Your task to perform on an android device: toggle airplane mode Image 0: 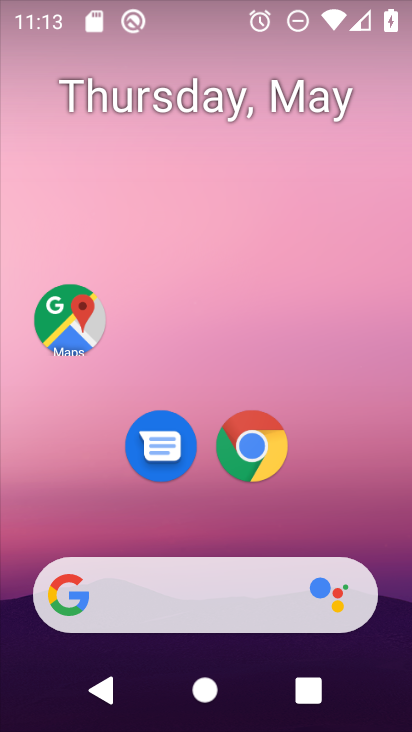
Step 0: drag from (218, 616) to (265, 188)
Your task to perform on an android device: toggle airplane mode Image 1: 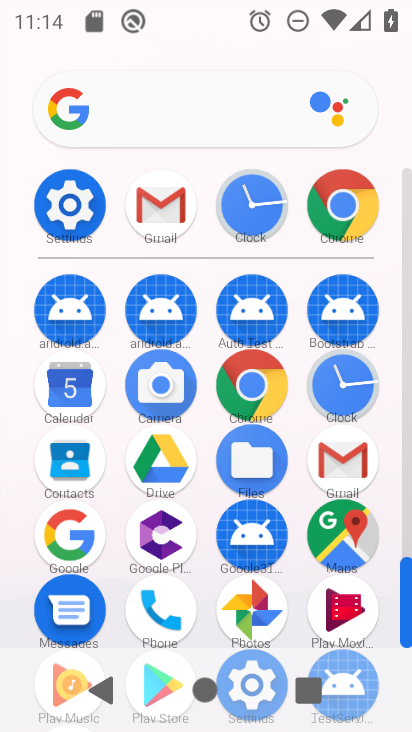
Step 1: click (62, 215)
Your task to perform on an android device: toggle airplane mode Image 2: 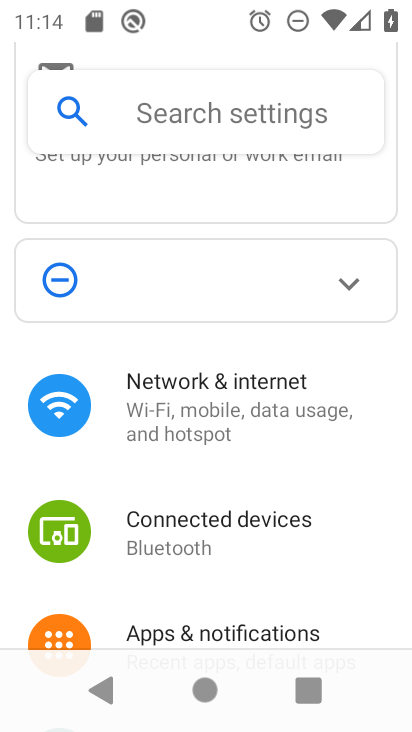
Step 2: click (156, 415)
Your task to perform on an android device: toggle airplane mode Image 3: 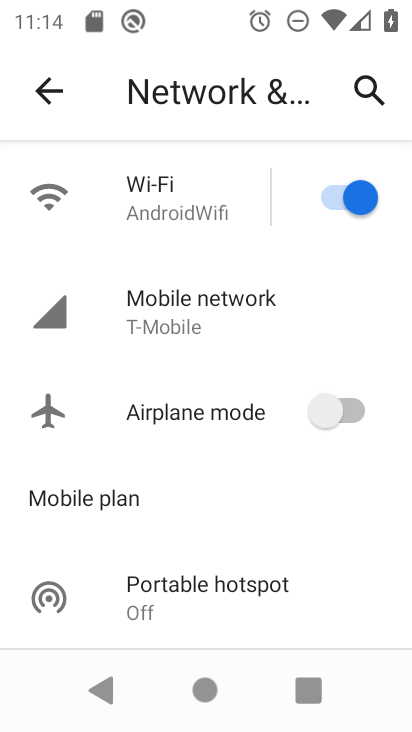
Step 3: click (192, 419)
Your task to perform on an android device: toggle airplane mode Image 4: 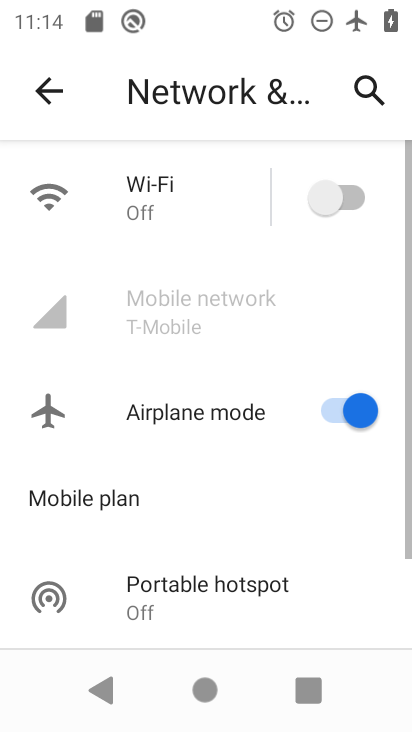
Step 4: click (192, 419)
Your task to perform on an android device: toggle airplane mode Image 5: 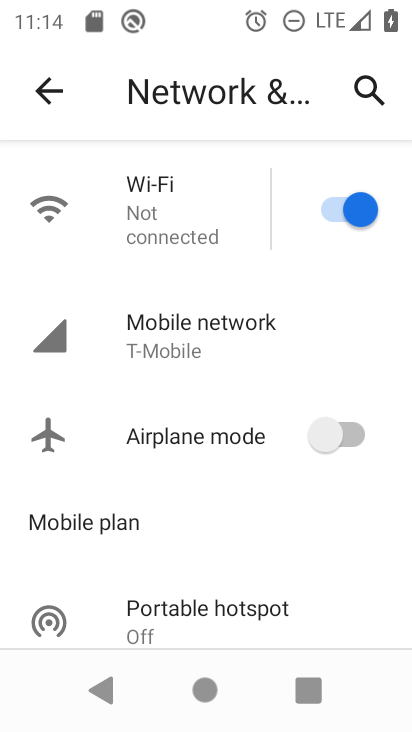
Step 5: task complete